Your task to perform on an android device: see sites visited before in the chrome app Image 0: 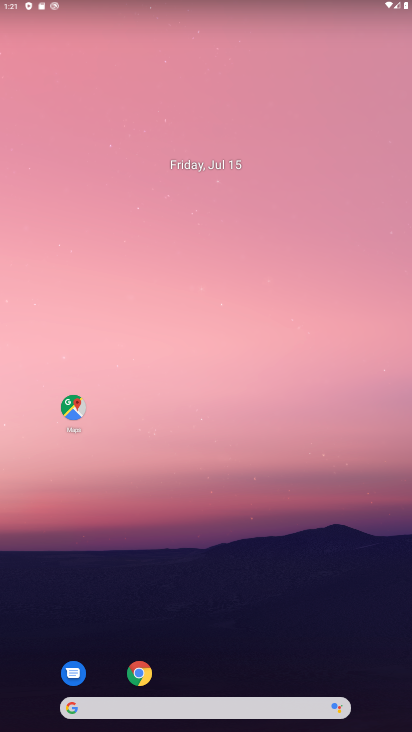
Step 0: drag from (284, 616) to (365, 6)
Your task to perform on an android device: see sites visited before in the chrome app Image 1: 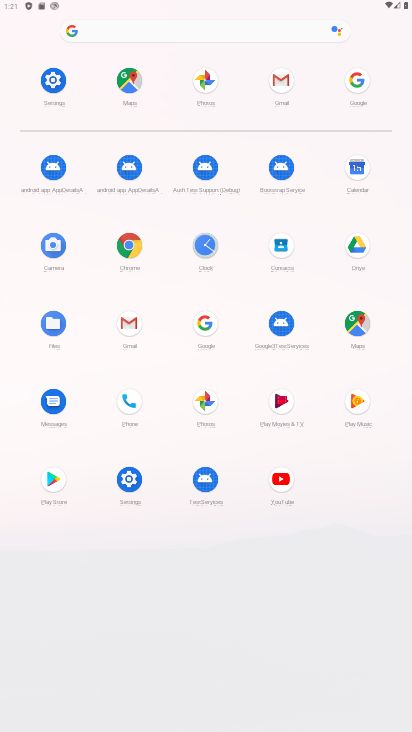
Step 1: click (135, 254)
Your task to perform on an android device: see sites visited before in the chrome app Image 2: 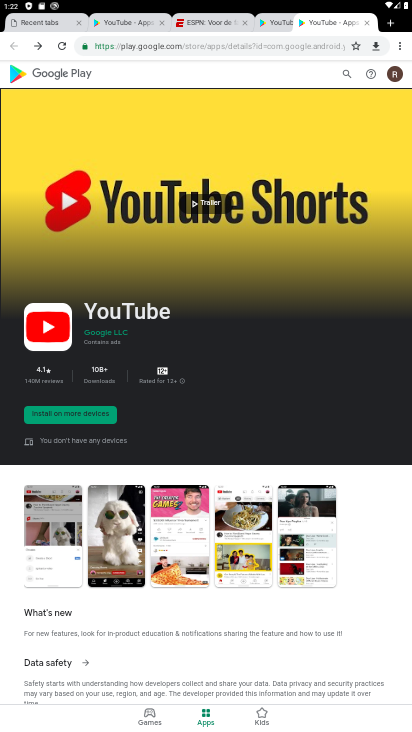
Step 2: task complete